Your task to perform on an android device: manage bookmarks in the chrome app Image 0: 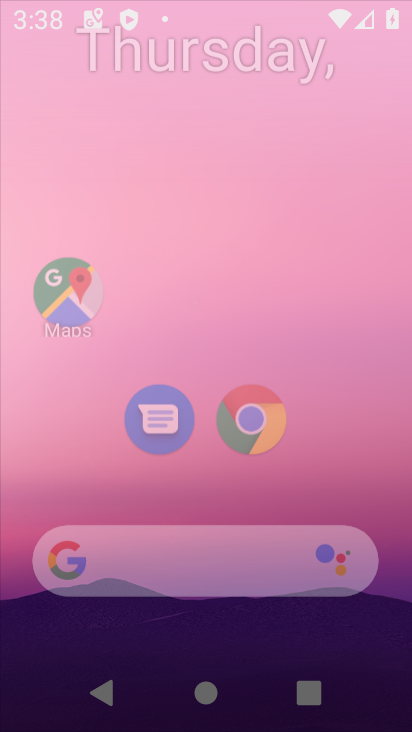
Step 0: press home button
Your task to perform on an android device: manage bookmarks in the chrome app Image 1: 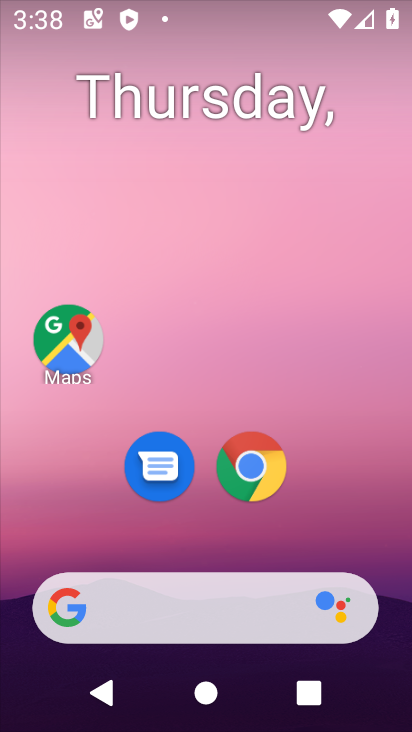
Step 1: drag from (310, 570) to (407, 443)
Your task to perform on an android device: manage bookmarks in the chrome app Image 2: 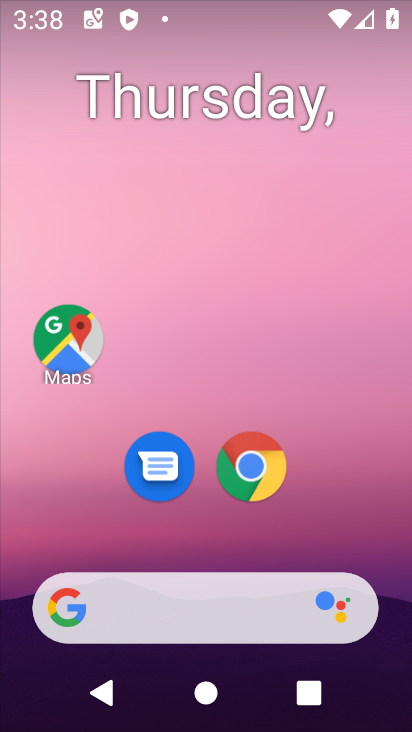
Step 2: click (259, 388)
Your task to perform on an android device: manage bookmarks in the chrome app Image 3: 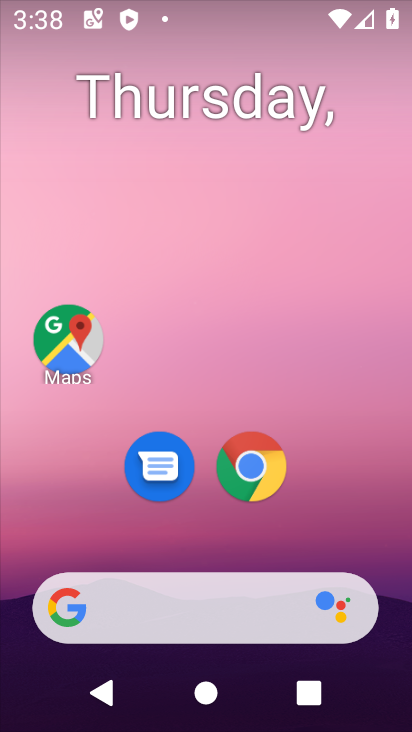
Step 3: drag from (348, 616) to (380, 58)
Your task to perform on an android device: manage bookmarks in the chrome app Image 4: 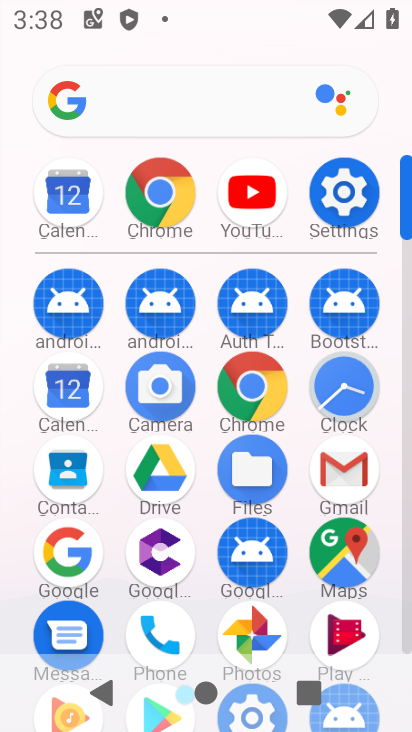
Step 4: click (261, 398)
Your task to perform on an android device: manage bookmarks in the chrome app Image 5: 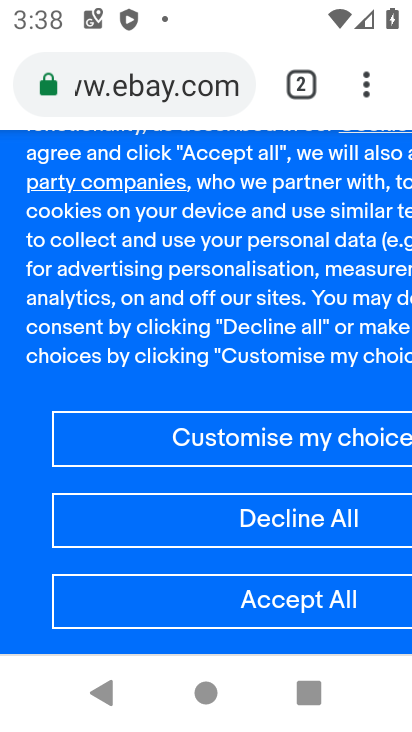
Step 5: click (366, 84)
Your task to perform on an android device: manage bookmarks in the chrome app Image 6: 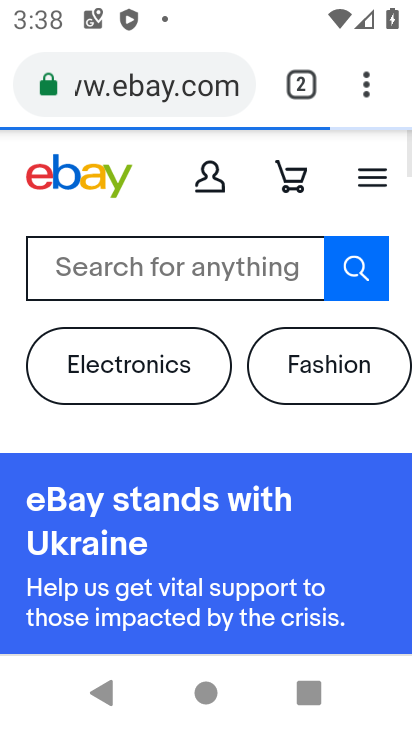
Step 6: task complete